Your task to perform on an android device: toggle show notifications on the lock screen Image 0: 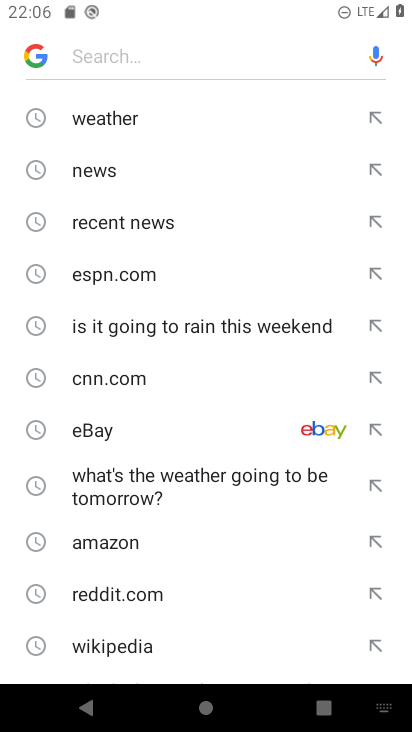
Step 0: press home button
Your task to perform on an android device: toggle show notifications on the lock screen Image 1: 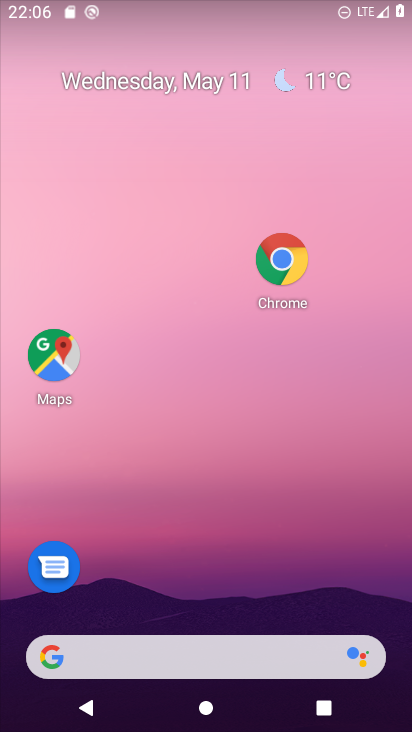
Step 1: drag from (157, 663) to (230, 278)
Your task to perform on an android device: toggle show notifications on the lock screen Image 2: 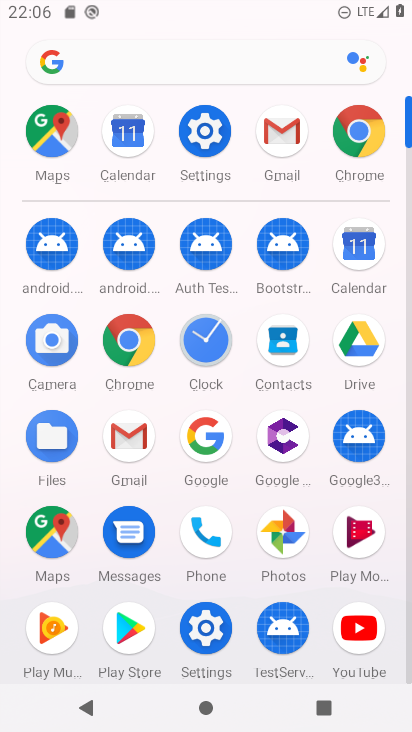
Step 2: click (204, 134)
Your task to perform on an android device: toggle show notifications on the lock screen Image 3: 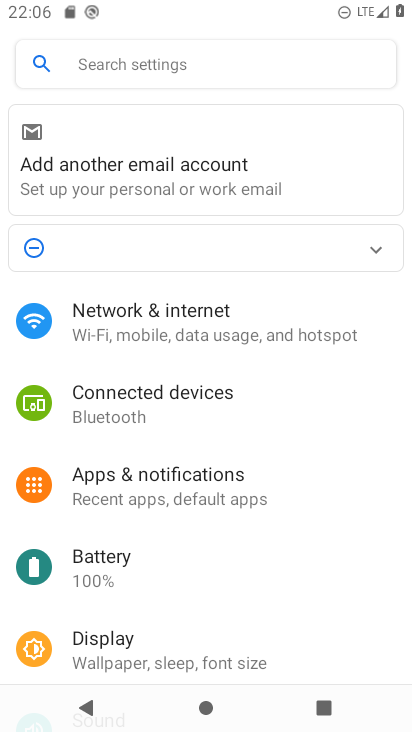
Step 3: drag from (147, 639) to (263, 273)
Your task to perform on an android device: toggle show notifications on the lock screen Image 4: 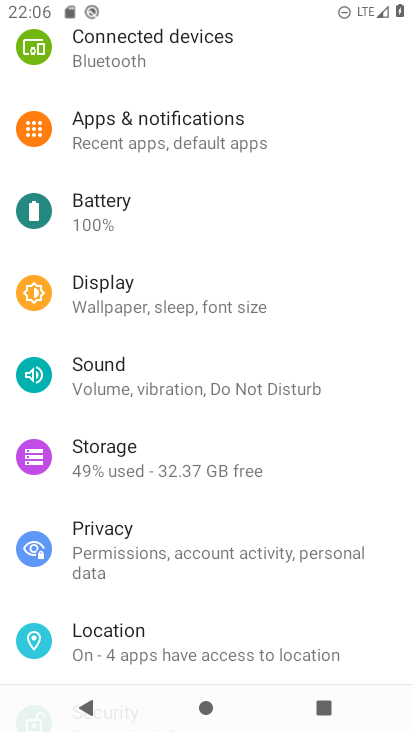
Step 4: click (191, 137)
Your task to perform on an android device: toggle show notifications on the lock screen Image 5: 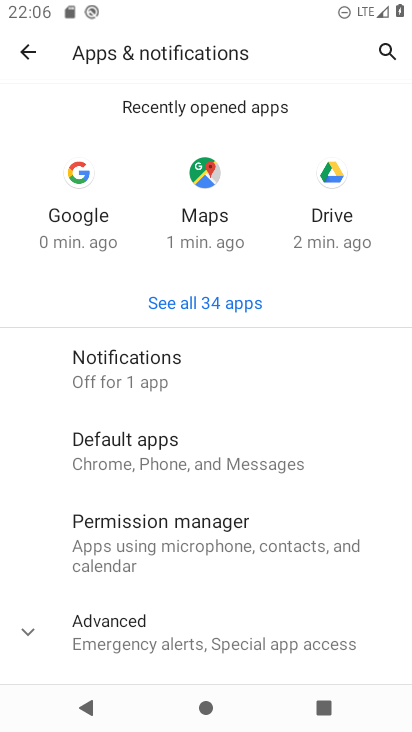
Step 5: click (139, 369)
Your task to perform on an android device: toggle show notifications on the lock screen Image 6: 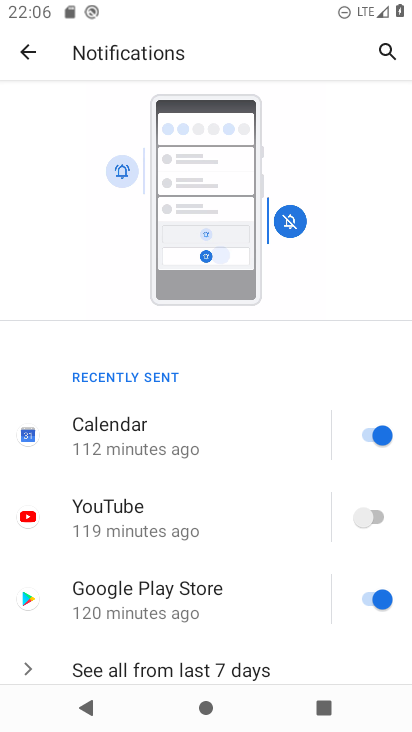
Step 6: drag from (209, 655) to (339, 250)
Your task to perform on an android device: toggle show notifications on the lock screen Image 7: 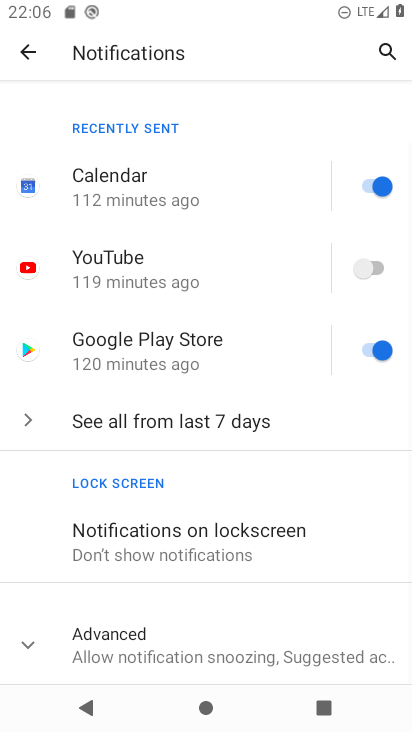
Step 7: click (177, 549)
Your task to perform on an android device: toggle show notifications on the lock screen Image 8: 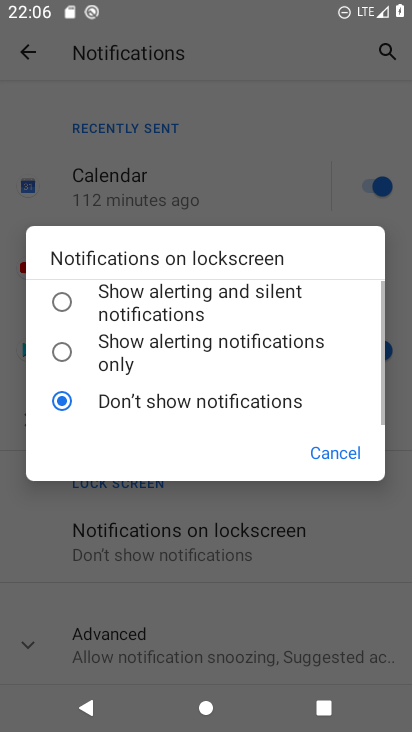
Step 8: click (63, 297)
Your task to perform on an android device: toggle show notifications on the lock screen Image 9: 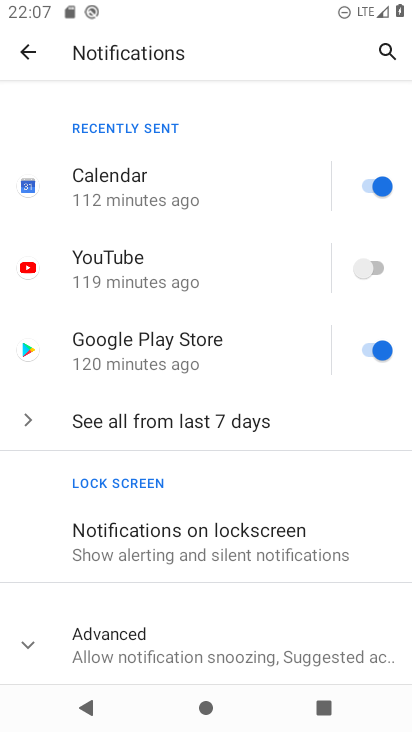
Step 9: task complete